Your task to perform on an android device: turn on translation in the chrome app Image 0: 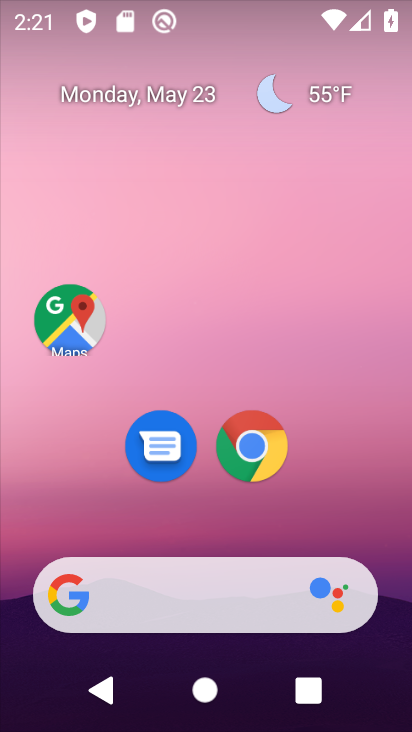
Step 0: click (261, 435)
Your task to perform on an android device: turn on translation in the chrome app Image 1: 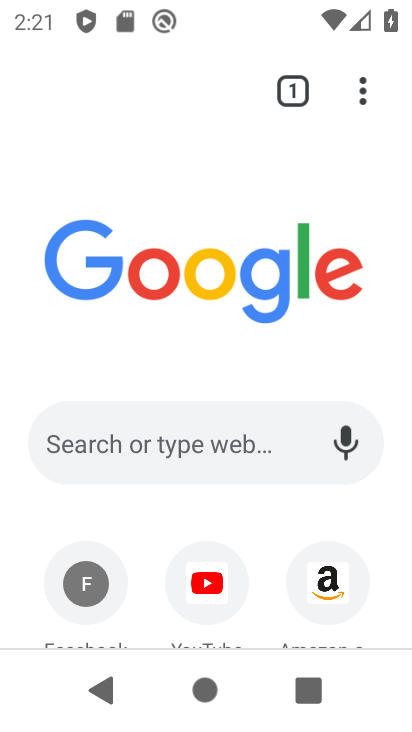
Step 1: click (359, 91)
Your task to perform on an android device: turn on translation in the chrome app Image 2: 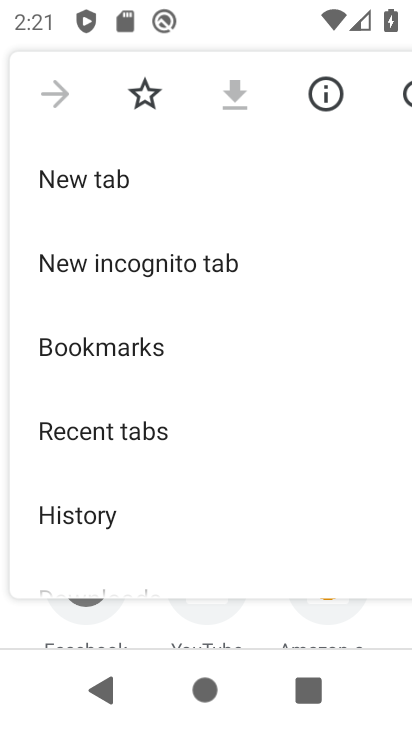
Step 2: drag from (192, 458) to (213, 173)
Your task to perform on an android device: turn on translation in the chrome app Image 3: 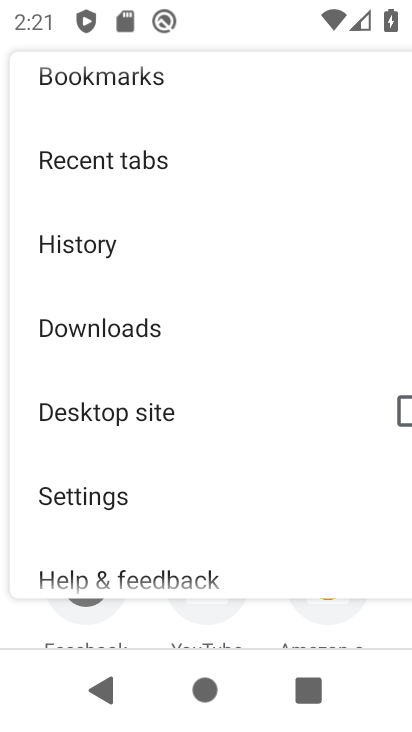
Step 3: click (101, 482)
Your task to perform on an android device: turn on translation in the chrome app Image 4: 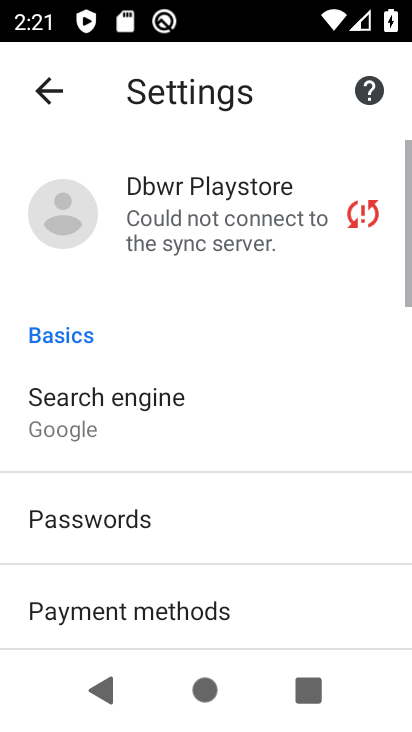
Step 4: drag from (203, 516) to (234, 239)
Your task to perform on an android device: turn on translation in the chrome app Image 5: 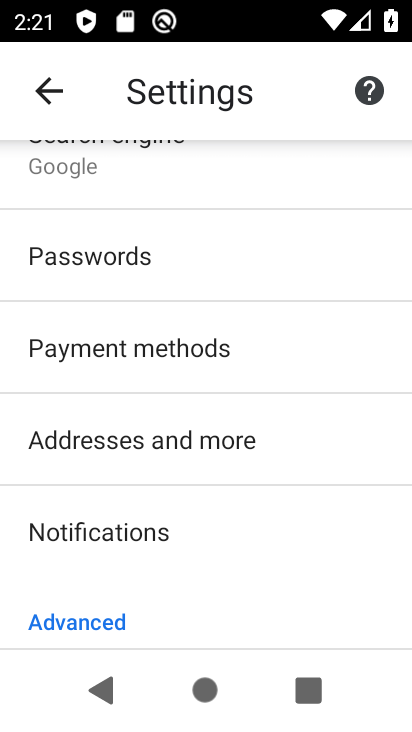
Step 5: drag from (184, 544) to (207, 297)
Your task to perform on an android device: turn on translation in the chrome app Image 6: 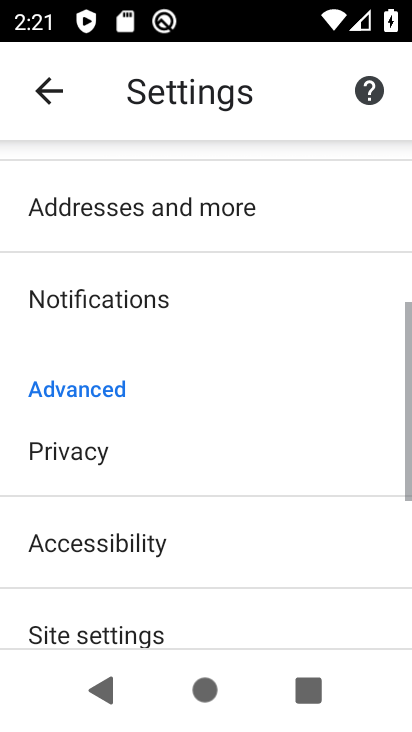
Step 6: drag from (203, 518) to (229, 344)
Your task to perform on an android device: turn on translation in the chrome app Image 7: 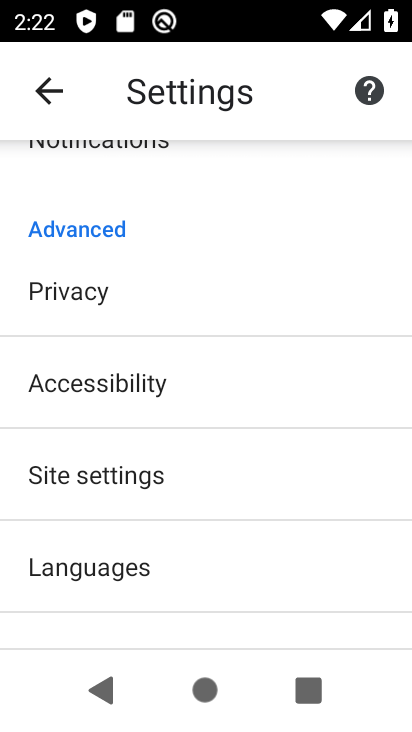
Step 7: click (162, 556)
Your task to perform on an android device: turn on translation in the chrome app Image 8: 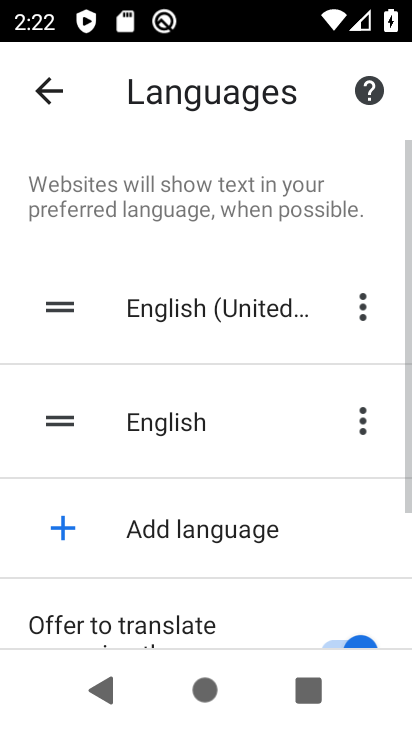
Step 8: task complete